Your task to perform on an android device: clear history in the chrome app Image 0: 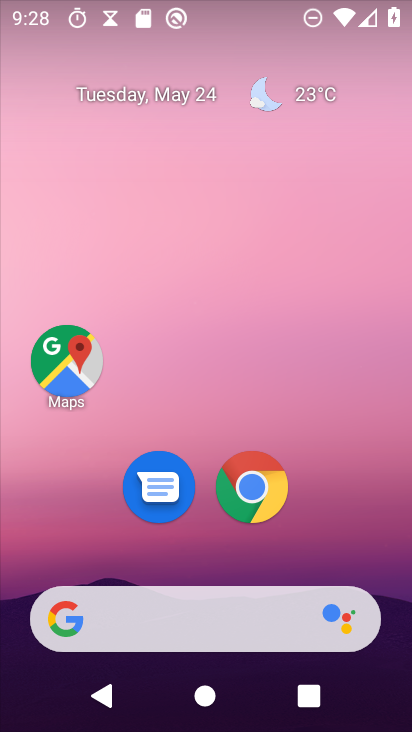
Step 0: press home button
Your task to perform on an android device: clear history in the chrome app Image 1: 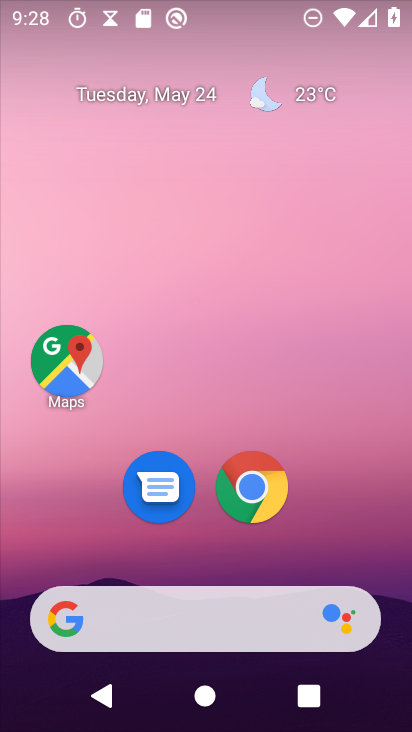
Step 1: click (253, 481)
Your task to perform on an android device: clear history in the chrome app Image 2: 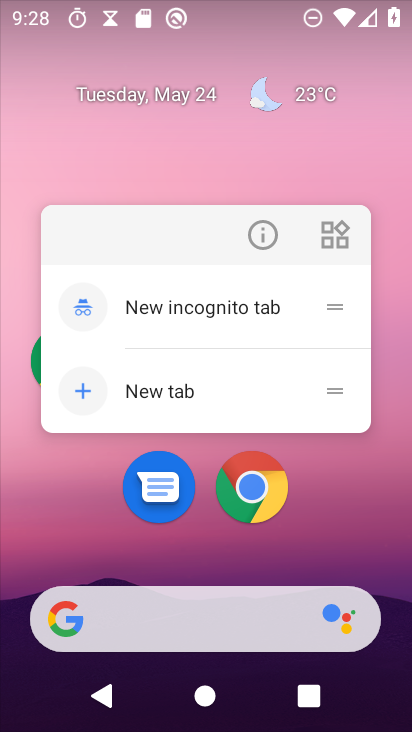
Step 2: click (255, 474)
Your task to perform on an android device: clear history in the chrome app Image 3: 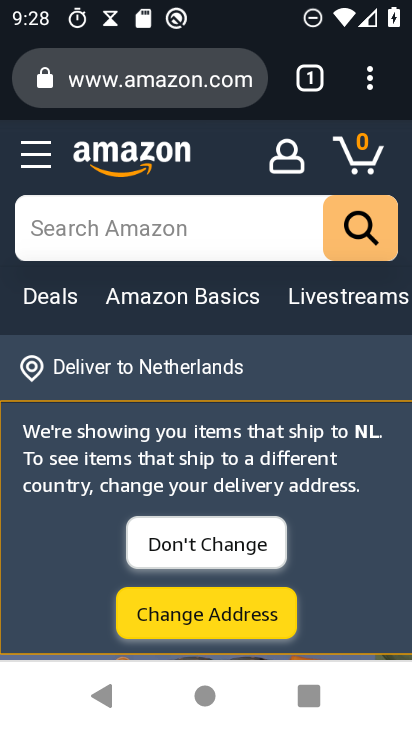
Step 3: click (373, 78)
Your task to perform on an android device: clear history in the chrome app Image 4: 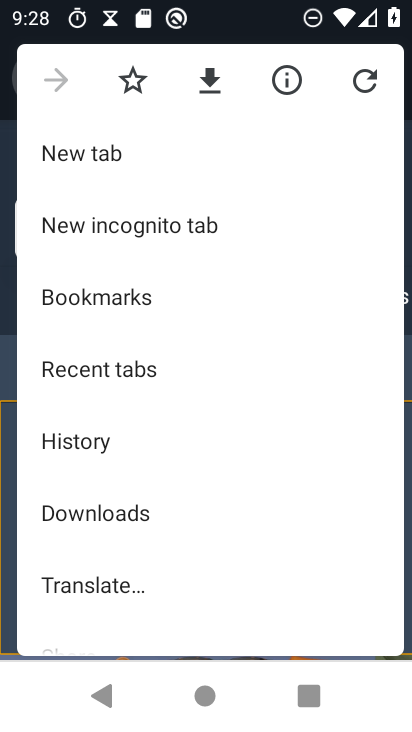
Step 4: click (71, 451)
Your task to perform on an android device: clear history in the chrome app Image 5: 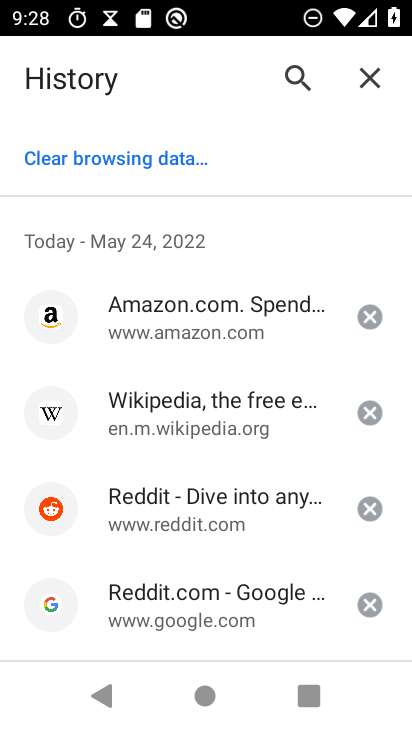
Step 5: click (119, 156)
Your task to perform on an android device: clear history in the chrome app Image 6: 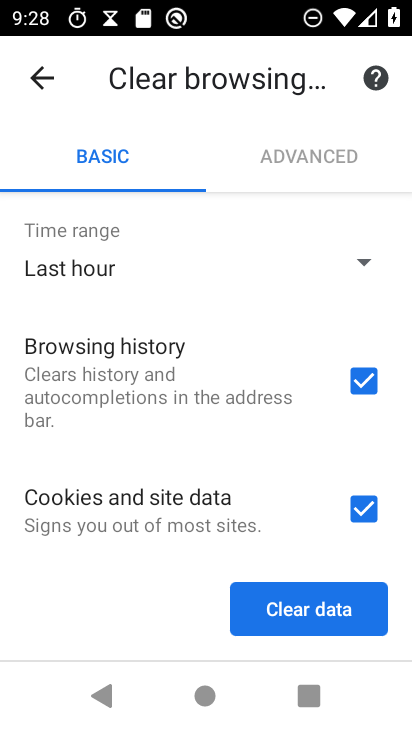
Step 6: click (332, 602)
Your task to perform on an android device: clear history in the chrome app Image 7: 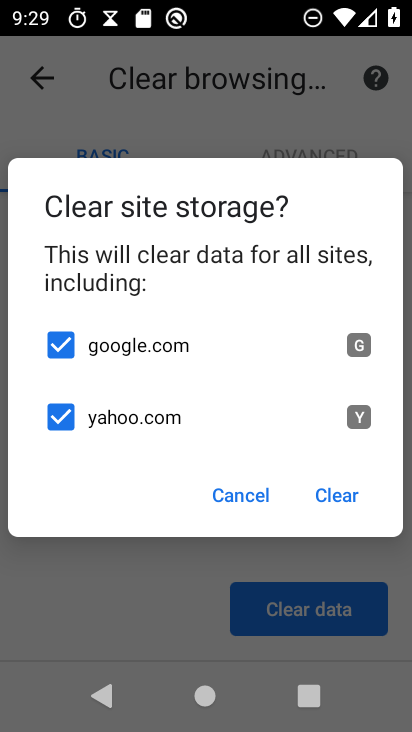
Step 7: click (347, 502)
Your task to perform on an android device: clear history in the chrome app Image 8: 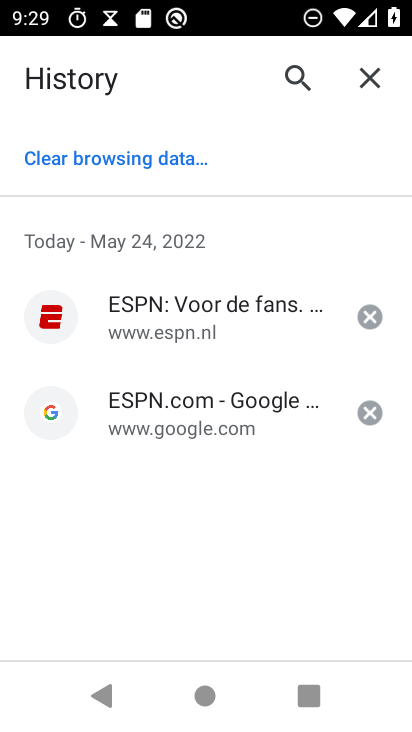
Step 8: task complete